Your task to perform on an android device: Open the Play Movies app and select the watchlist tab. Image 0: 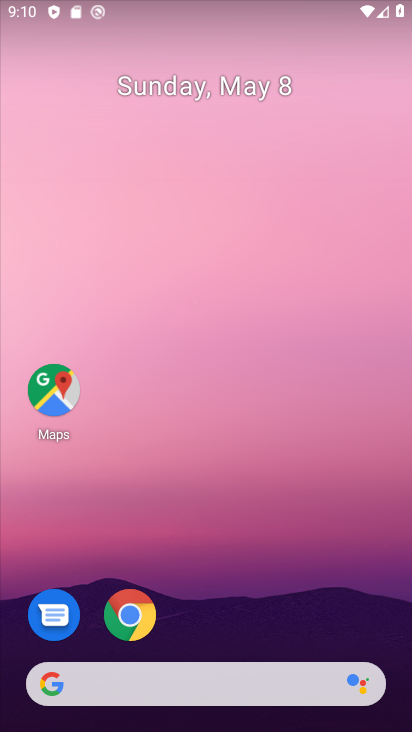
Step 0: drag from (381, 651) to (349, 68)
Your task to perform on an android device: Open the Play Movies app and select the watchlist tab. Image 1: 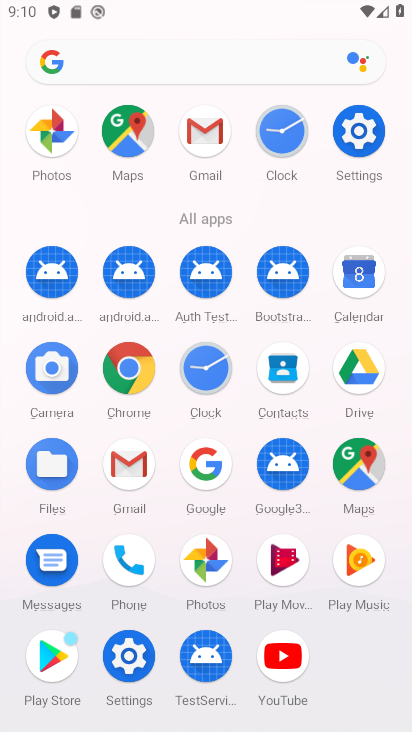
Step 1: click (275, 558)
Your task to perform on an android device: Open the Play Movies app and select the watchlist tab. Image 2: 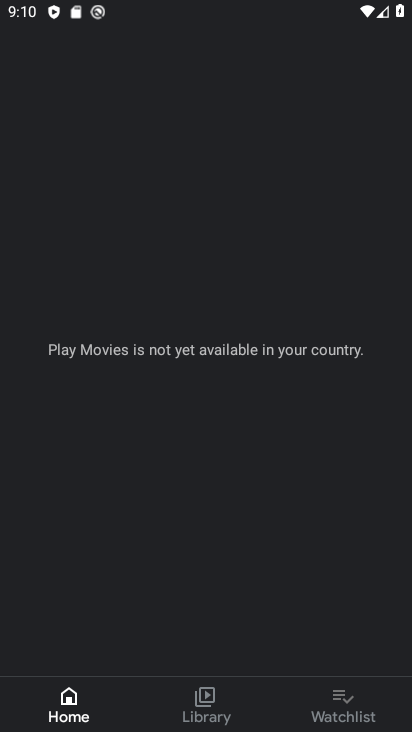
Step 2: click (338, 694)
Your task to perform on an android device: Open the Play Movies app and select the watchlist tab. Image 3: 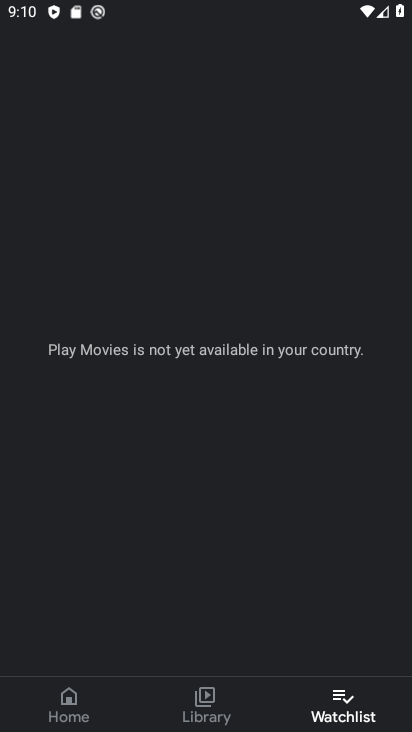
Step 3: task complete